Your task to perform on an android device: Check the weather Image 0: 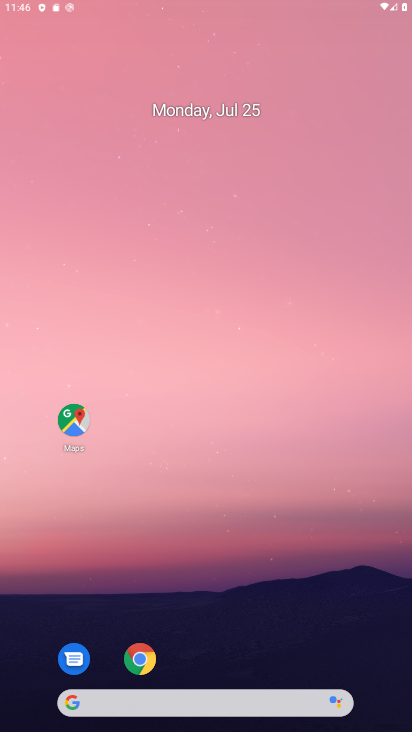
Step 0: drag from (191, 680) to (339, 84)
Your task to perform on an android device: Check the weather Image 1: 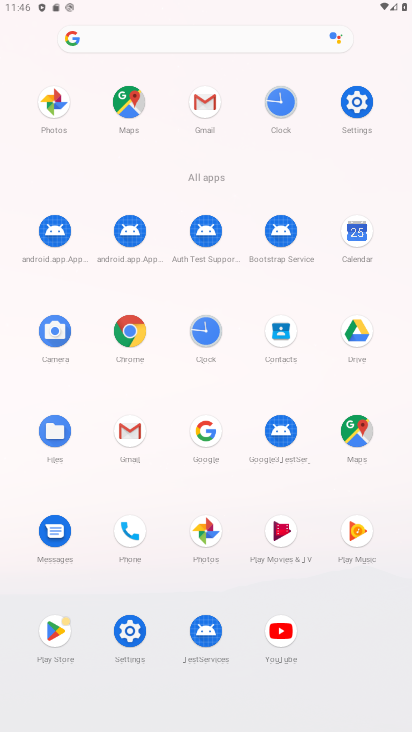
Step 1: click (165, 33)
Your task to perform on an android device: Check the weather Image 2: 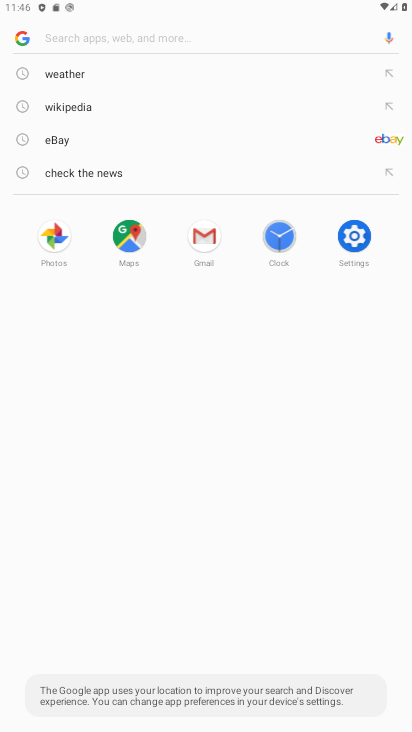
Step 2: click (61, 72)
Your task to perform on an android device: Check the weather Image 3: 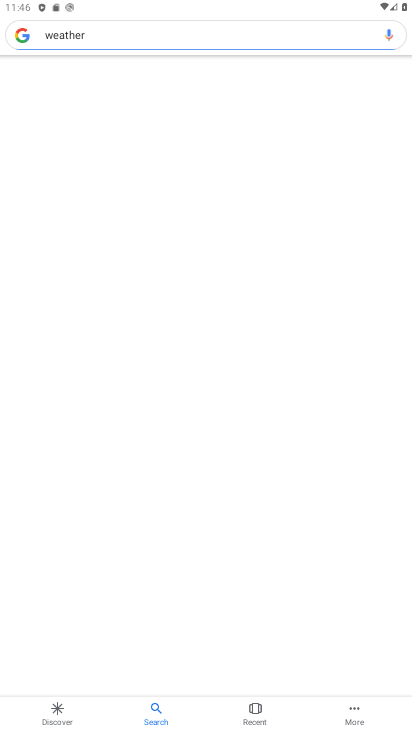
Step 3: task complete